Your task to perform on an android device: check android version Image 0: 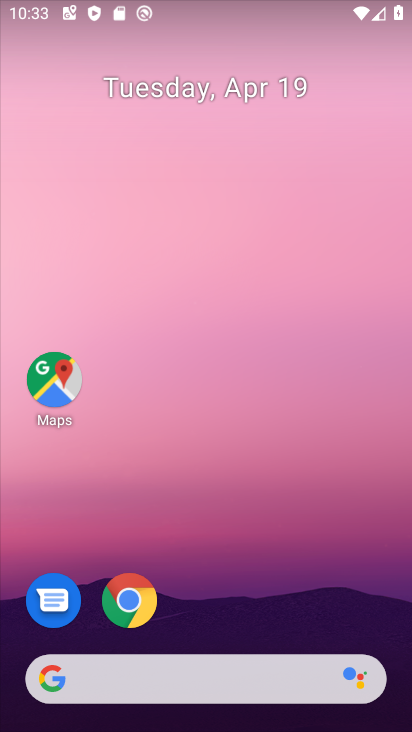
Step 0: drag from (221, 622) to (305, 2)
Your task to perform on an android device: check android version Image 1: 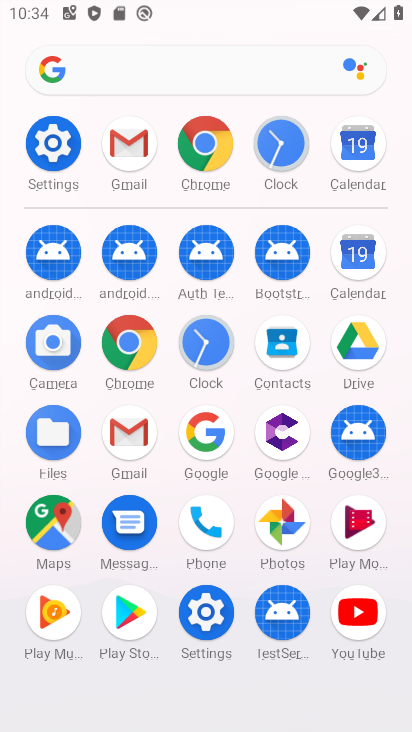
Step 1: click (49, 154)
Your task to perform on an android device: check android version Image 2: 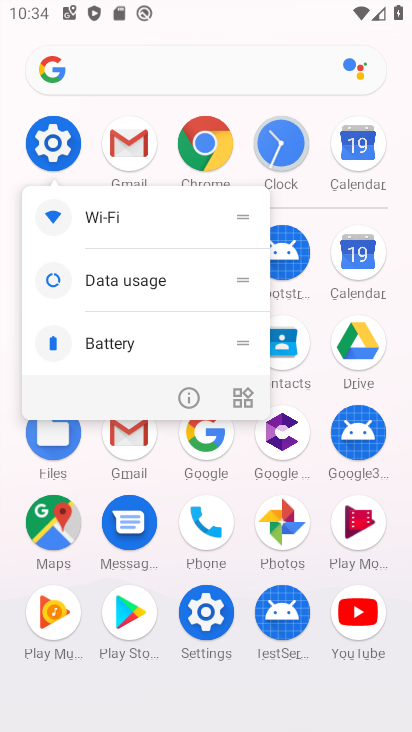
Step 2: click (52, 130)
Your task to perform on an android device: check android version Image 3: 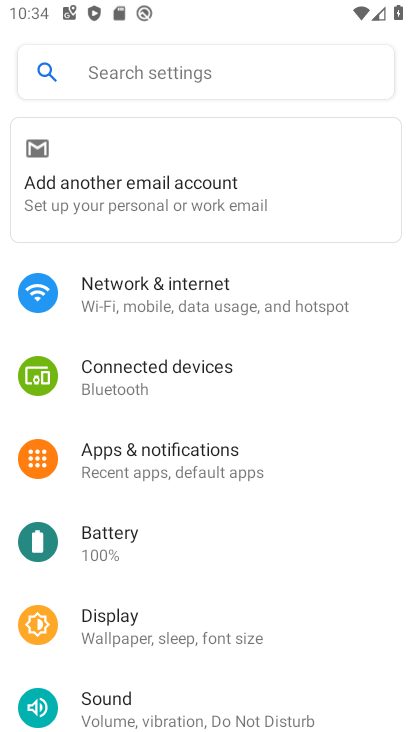
Step 3: drag from (179, 591) to (331, 17)
Your task to perform on an android device: check android version Image 4: 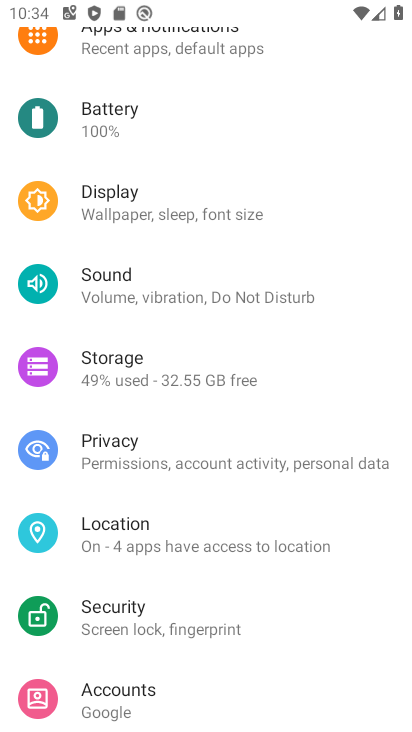
Step 4: drag from (194, 600) to (302, 40)
Your task to perform on an android device: check android version Image 5: 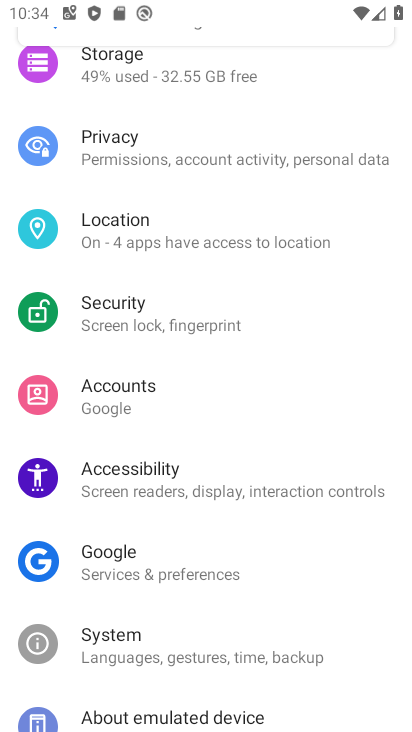
Step 5: drag from (176, 670) to (212, 316)
Your task to perform on an android device: check android version Image 6: 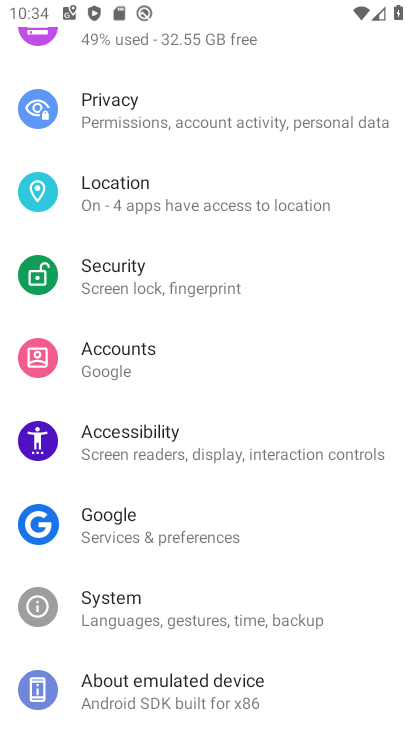
Step 6: click (166, 696)
Your task to perform on an android device: check android version Image 7: 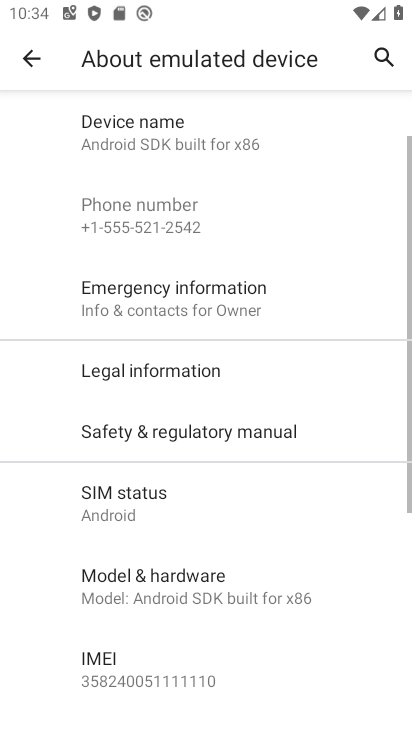
Step 7: drag from (154, 630) to (314, 142)
Your task to perform on an android device: check android version Image 8: 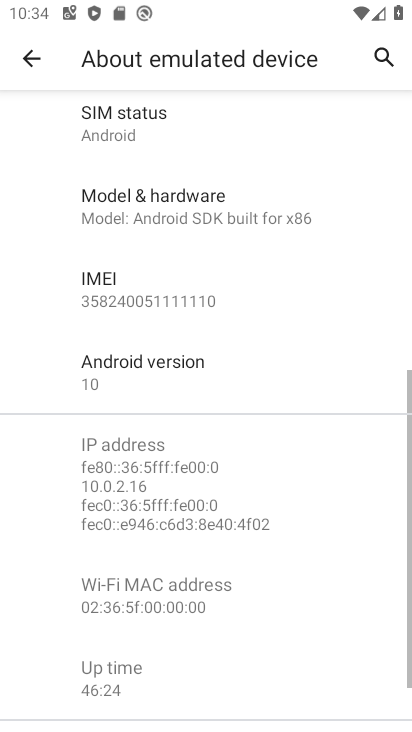
Step 8: drag from (184, 548) to (235, 281)
Your task to perform on an android device: check android version Image 9: 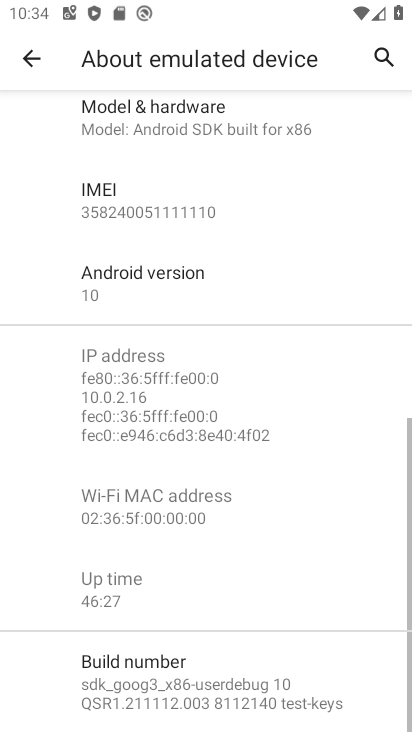
Step 9: click (134, 263)
Your task to perform on an android device: check android version Image 10: 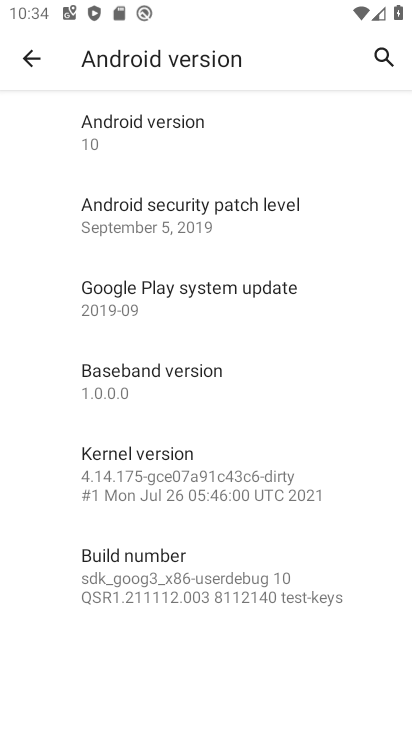
Step 10: task complete